Your task to perform on an android device: add a contact in the contacts app Image 0: 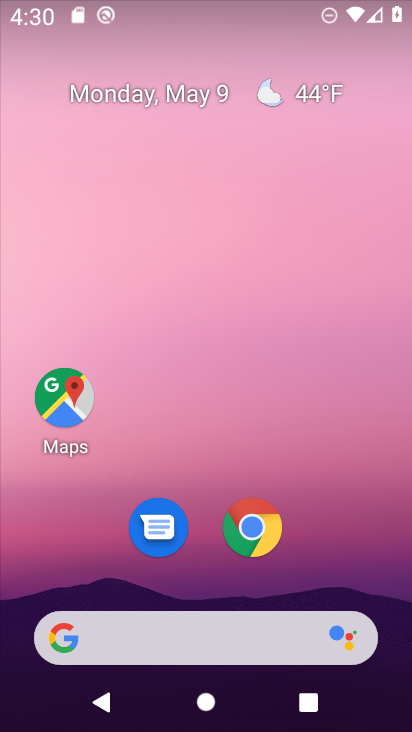
Step 0: drag from (211, 576) to (256, 16)
Your task to perform on an android device: add a contact in the contacts app Image 1: 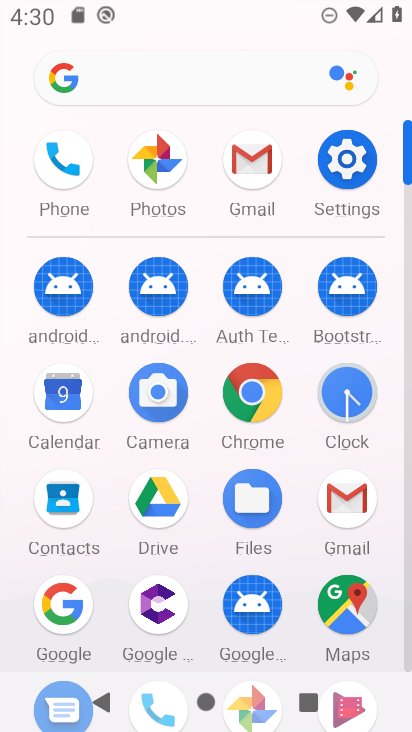
Step 1: drag from (202, 616) to (182, 233)
Your task to perform on an android device: add a contact in the contacts app Image 2: 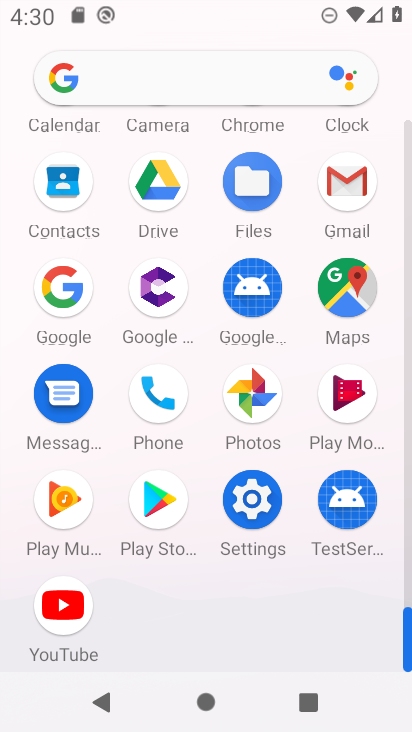
Step 2: click (56, 203)
Your task to perform on an android device: add a contact in the contacts app Image 3: 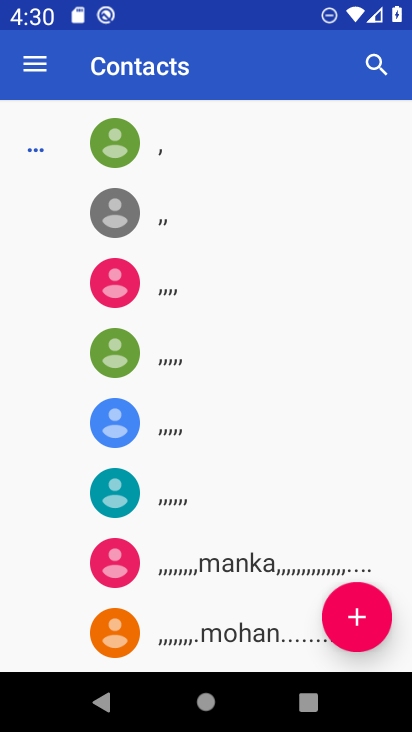
Step 3: click (379, 597)
Your task to perform on an android device: add a contact in the contacts app Image 4: 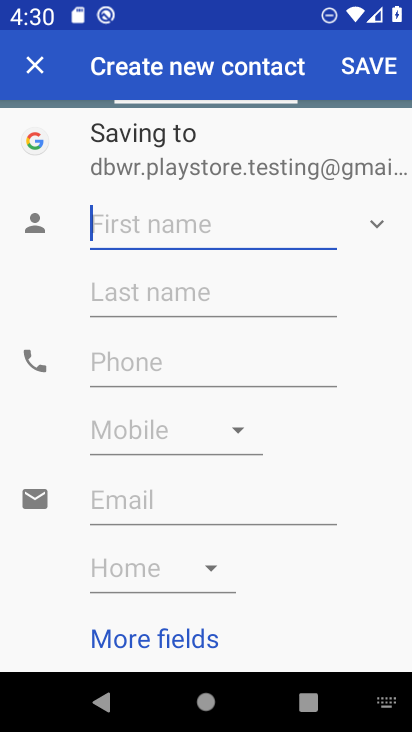
Step 4: type ",,,,,,,"
Your task to perform on an android device: add a contact in the contacts app Image 5: 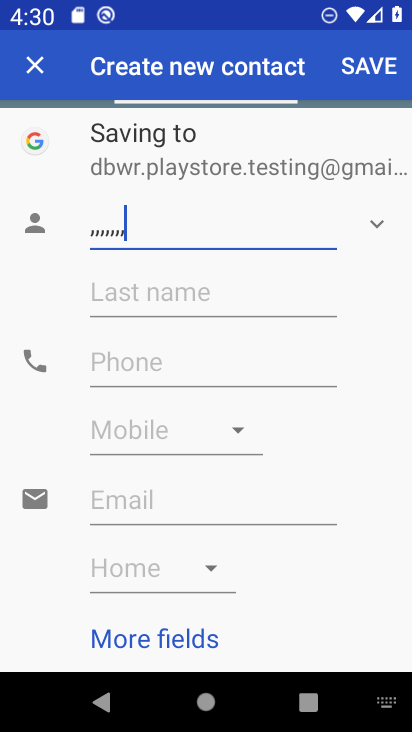
Step 5: click (242, 367)
Your task to perform on an android device: add a contact in the contacts app Image 6: 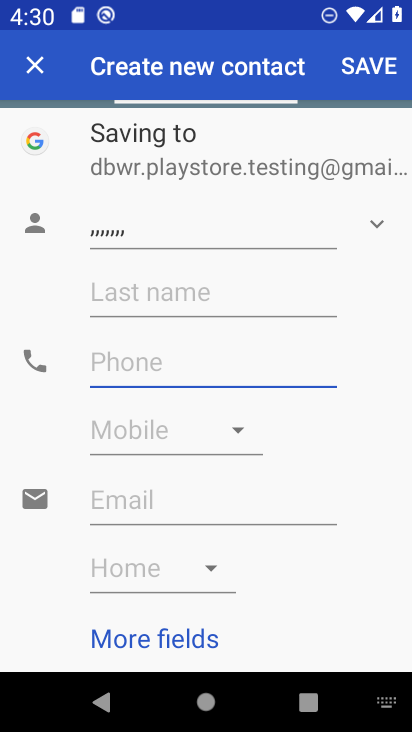
Step 6: type "87654356"
Your task to perform on an android device: add a contact in the contacts app Image 7: 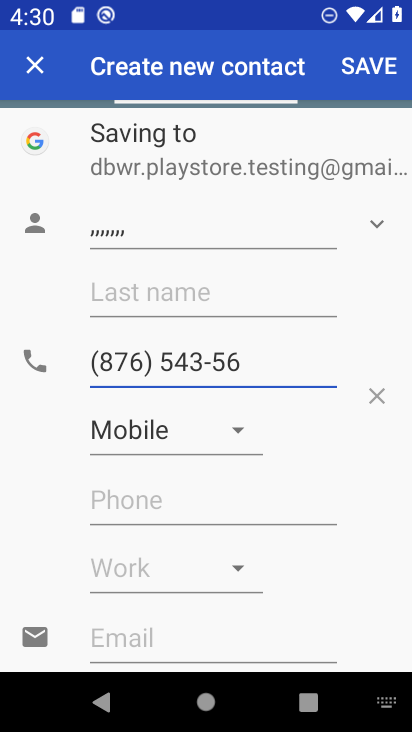
Step 7: click (376, 59)
Your task to perform on an android device: add a contact in the contacts app Image 8: 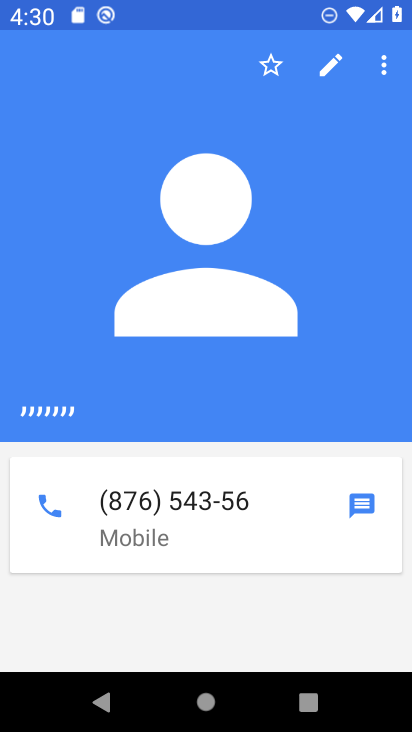
Step 8: task complete